Your task to perform on an android device: Open Android settings Image 0: 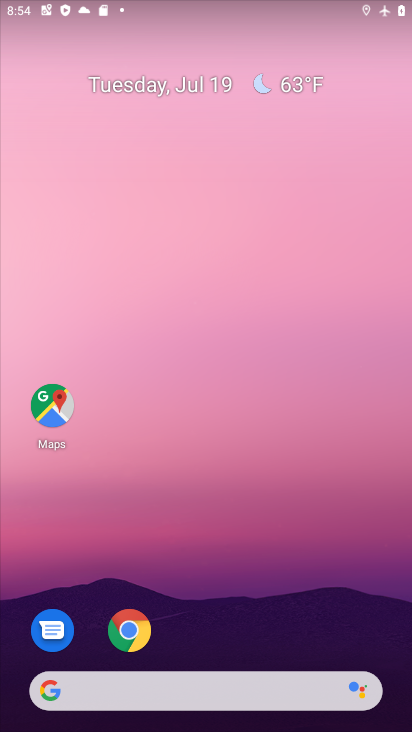
Step 0: drag from (121, 697) to (174, 5)
Your task to perform on an android device: Open Android settings Image 1: 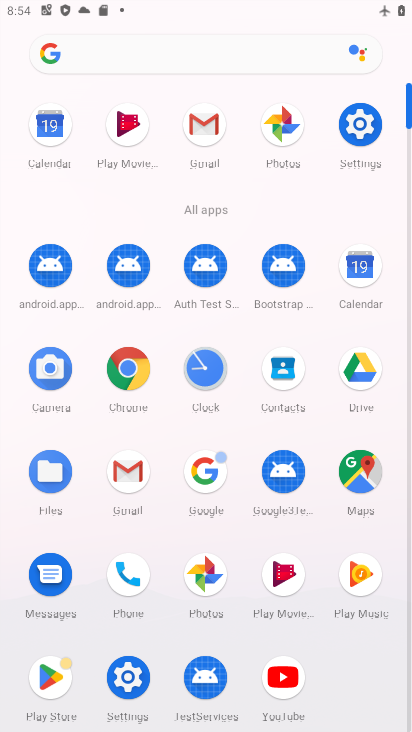
Step 1: click (362, 124)
Your task to perform on an android device: Open Android settings Image 2: 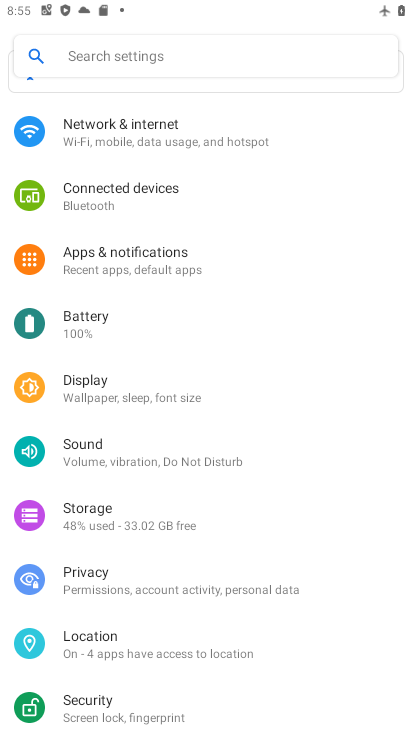
Step 2: task complete